Your task to perform on an android device: show emergency info Image 0: 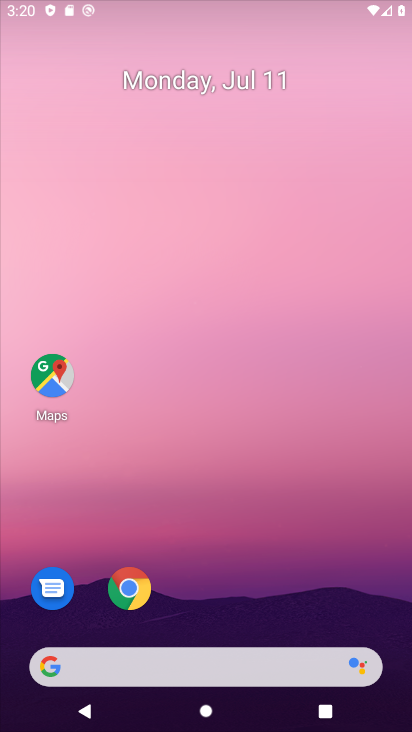
Step 0: drag from (340, 605) to (347, 71)
Your task to perform on an android device: show emergency info Image 1: 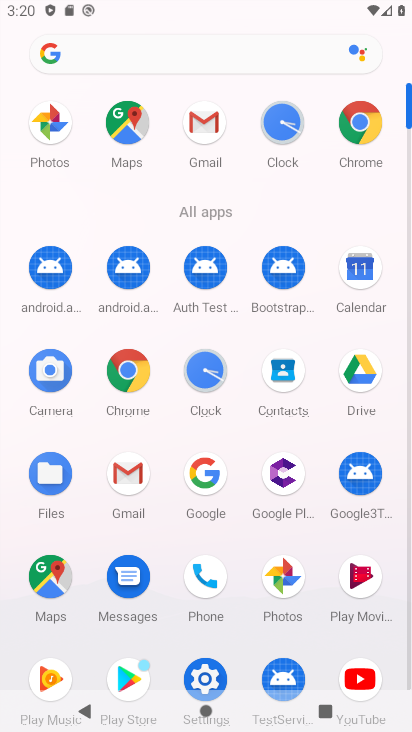
Step 1: drag from (385, 546) to (401, 330)
Your task to perform on an android device: show emergency info Image 2: 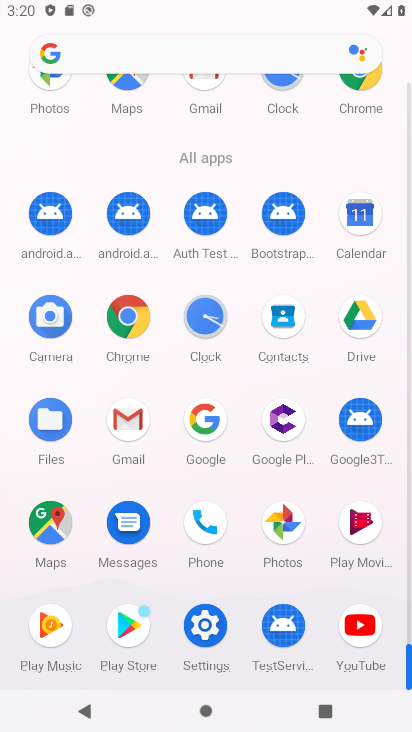
Step 2: click (202, 629)
Your task to perform on an android device: show emergency info Image 3: 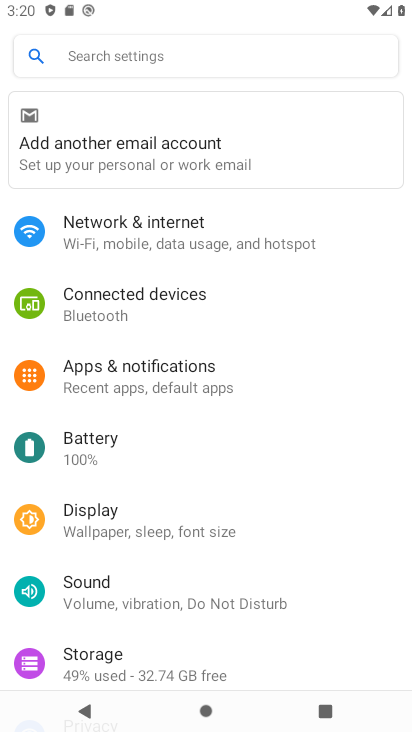
Step 3: drag from (340, 534) to (347, 259)
Your task to perform on an android device: show emergency info Image 4: 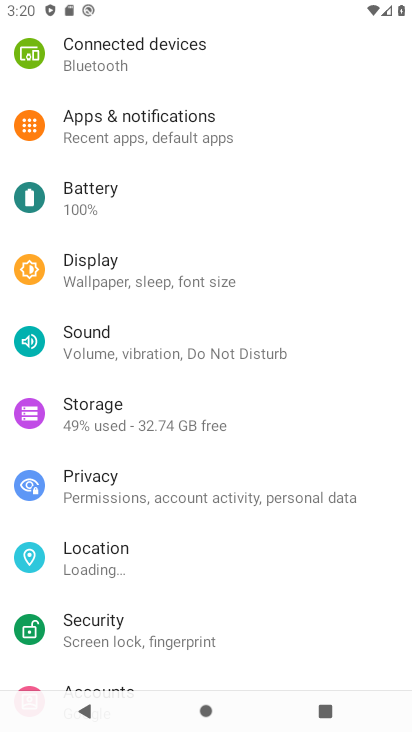
Step 4: drag from (344, 608) to (365, 348)
Your task to perform on an android device: show emergency info Image 5: 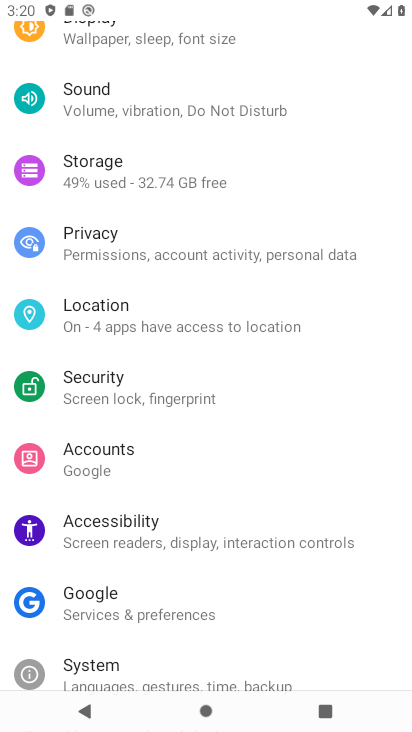
Step 5: drag from (352, 628) to (350, 461)
Your task to perform on an android device: show emergency info Image 6: 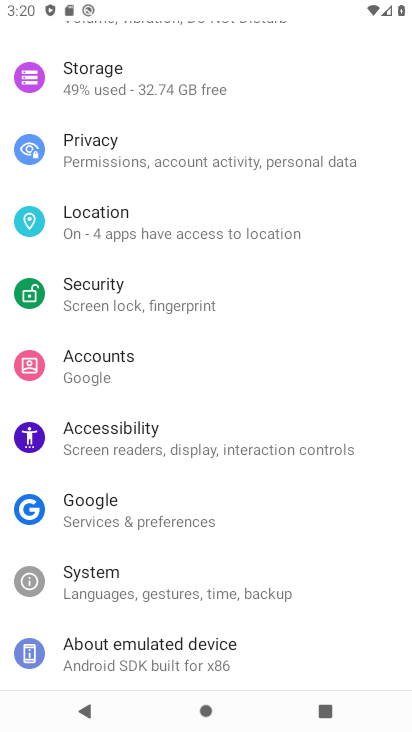
Step 6: drag from (364, 602) to (359, 391)
Your task to perform on an android device: show emergency info Image 7: 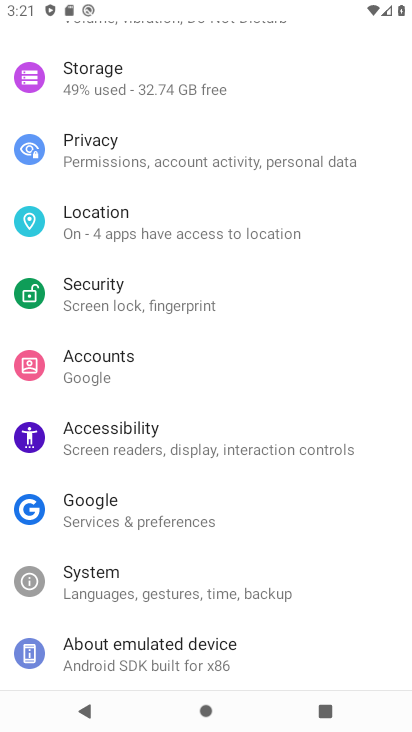
Step 7: click (218, 664)
Your task to perform on an android device: show emergency info Image 8: 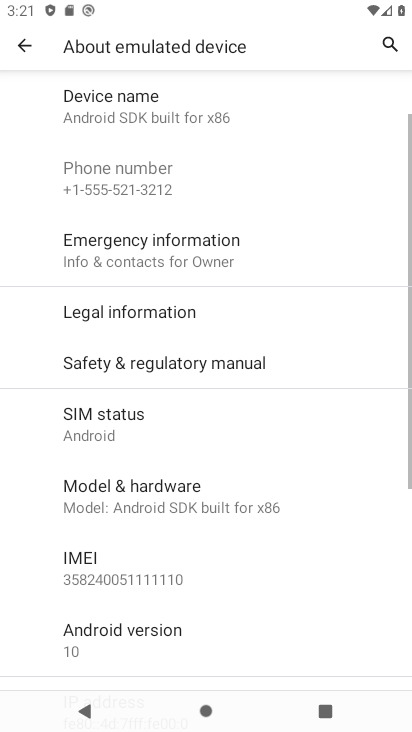
Step 8: drag from (348, 577) to (354, 408)
Your task to perform on an android device: show emergency info Image 9: 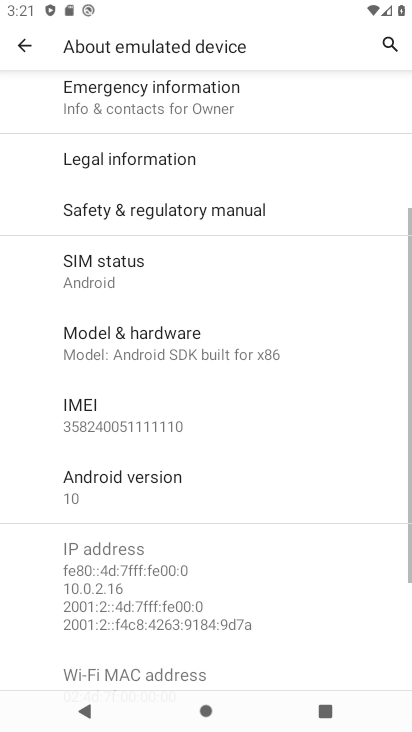
Step 9: drag from (346, 250) to (345, 426)
Your task to perform on an android device: show emergency info Image 10: 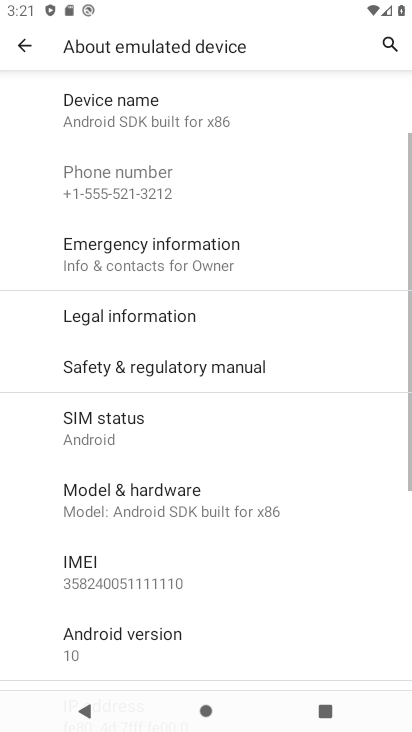
Step 10: drag from (349, 146) to (346, 364)
Your task to perform on an android device: show emergency info Image 11: 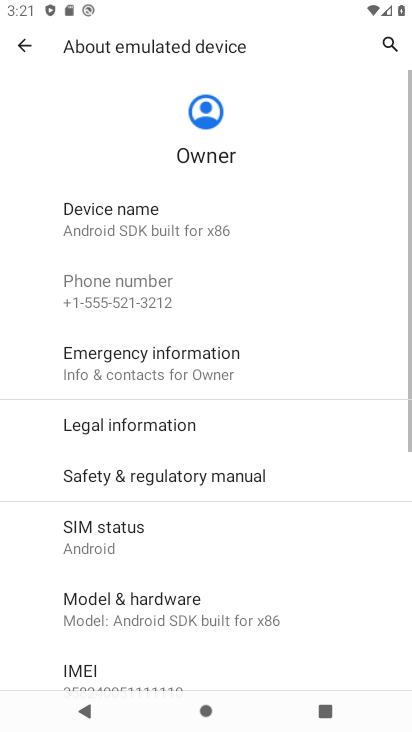
Step 11: drag from (347, 196) to (344, 402)
Your task to perform on an android device: show emergency info Image 12: 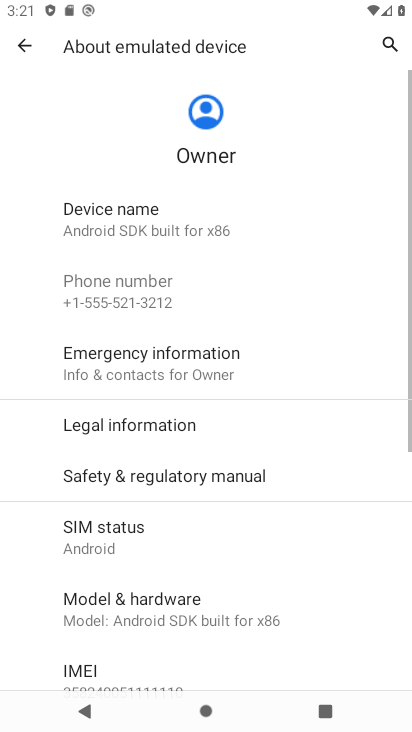
Step 12: click (238, 368)
Your task to perform on an android device: show emergency info Image 13: 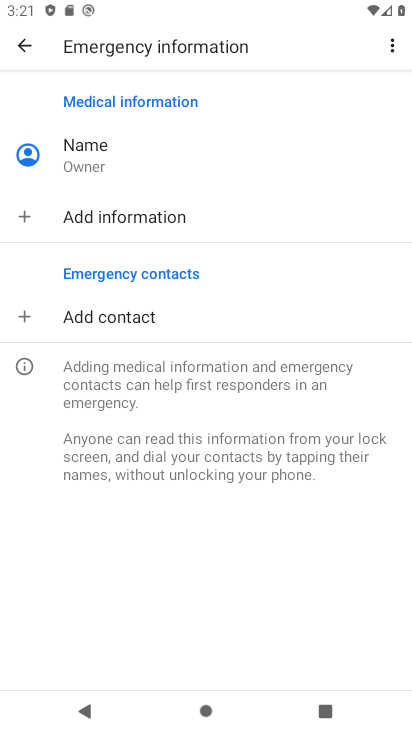
Step 13: task complete